Your task to perform on an android device: set an alarm Image 0: 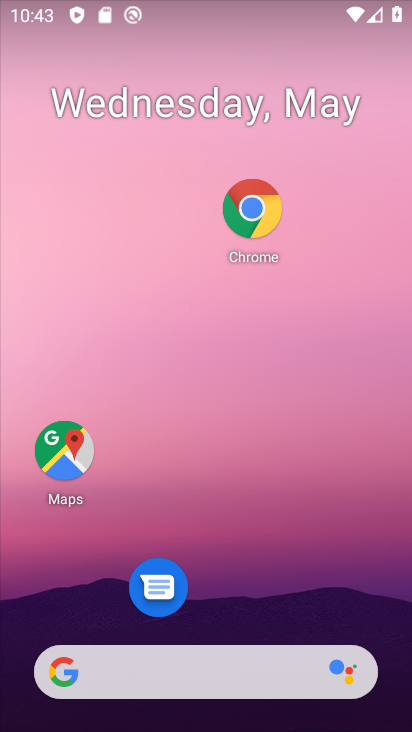
Step 0: drag from (212, 627) to (162, 30)
Your task to perform on an android device: set an alarm Image 1: 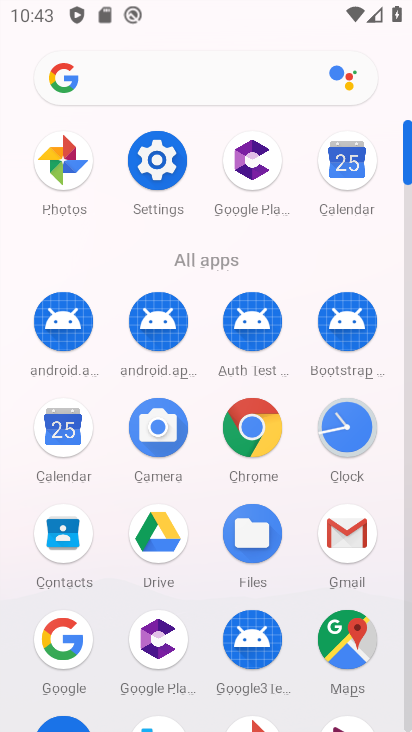
Step 1: click (347, 440)
Your task to perform on an android device: set an alarm Image 2: 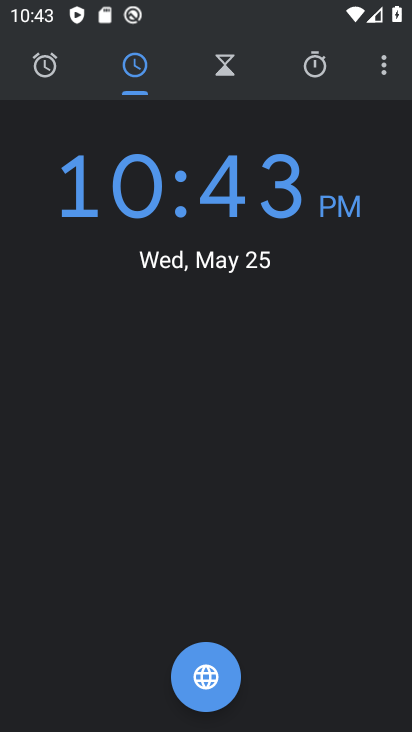
Step 2: click (46, 55)
Your task to perform on an android device: set an alarm Image 3: 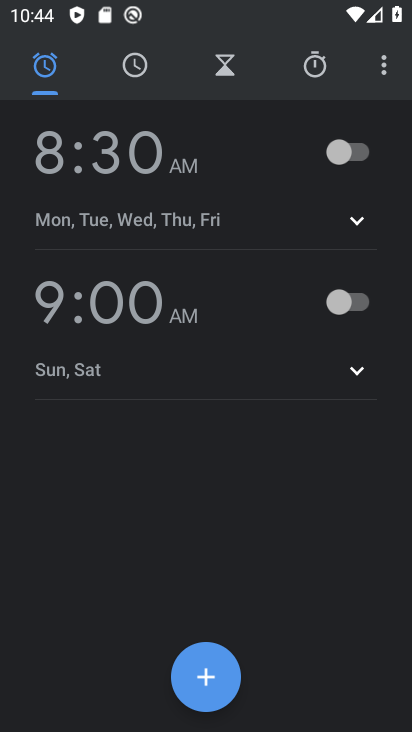
Step 3: click (125, 150)
Your task to perform on an android device: set an alarm Image 4: 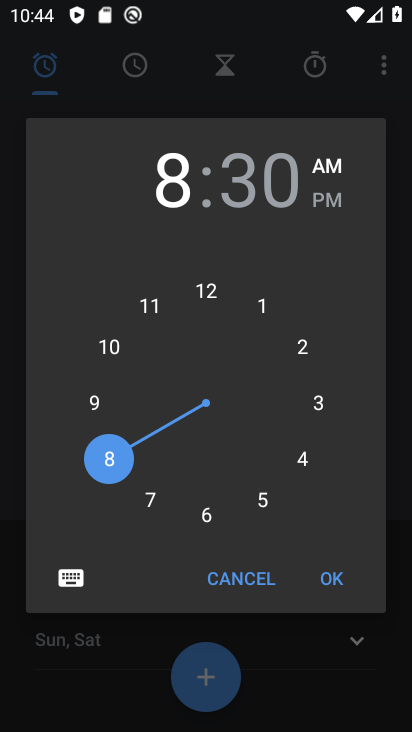
Step 4: click (126, 354)
Your task to perform on an android device: set an alarm Image 5: 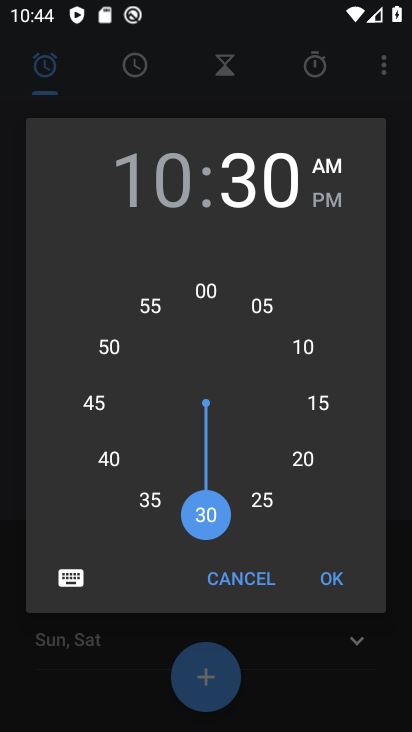
Step 5: click (275, 513)
Your task to perform on an android device: set an alarm Image 6: 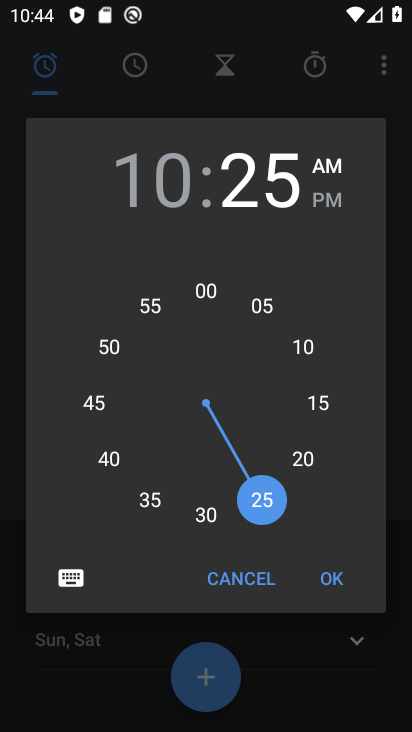
Step 6: click (319, 578)
Your task to perform on an android device: set an alarm Image 7: 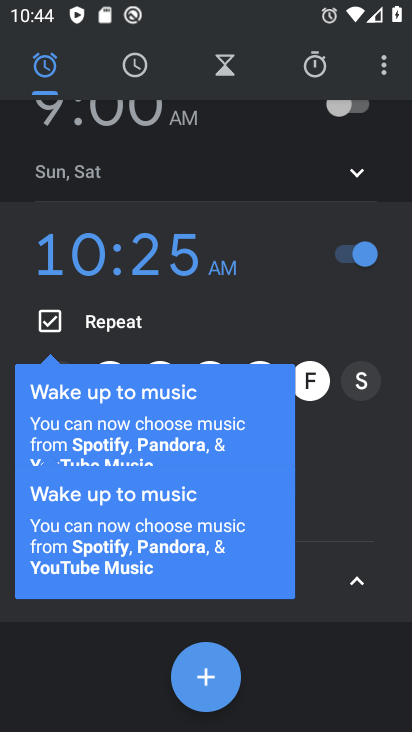
Step 7: click (360, 586)
Your task to perform on an android device: set an alarm Image 8: 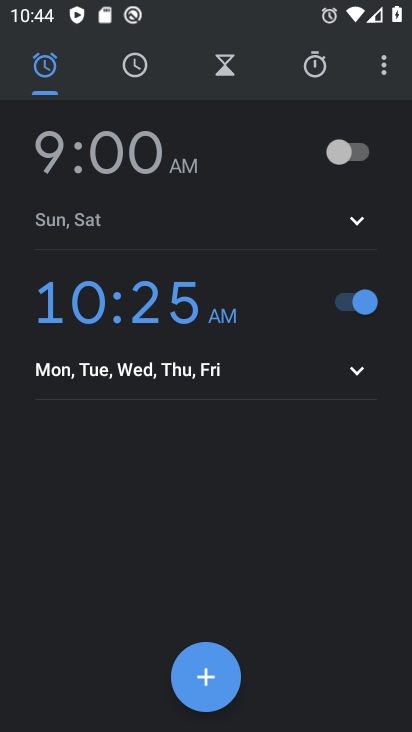
Step 8: task complete